Your task to perform on an android device: Is it going to rain this weekend? Image 0: 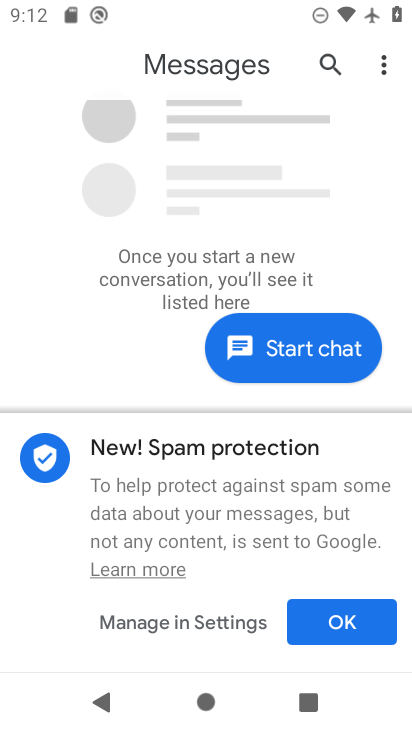
Step 0: press home button
Your task to perform on an android device: Is it going to rain this weekend? Image 1: 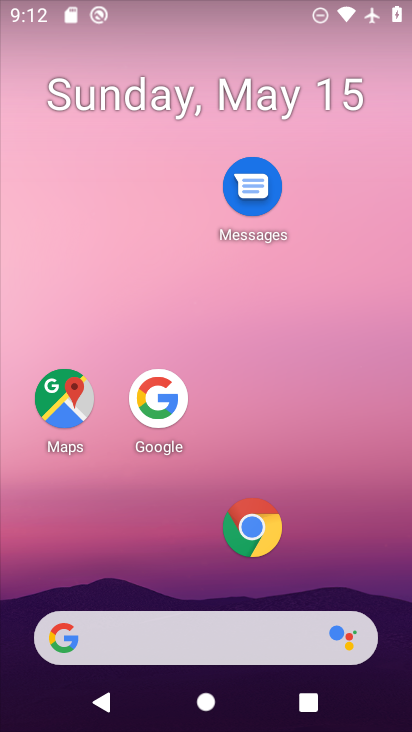
Step 1: click (67, 643)
Your task to perform on an android device: Is it going to rain this weekend? Image 2: 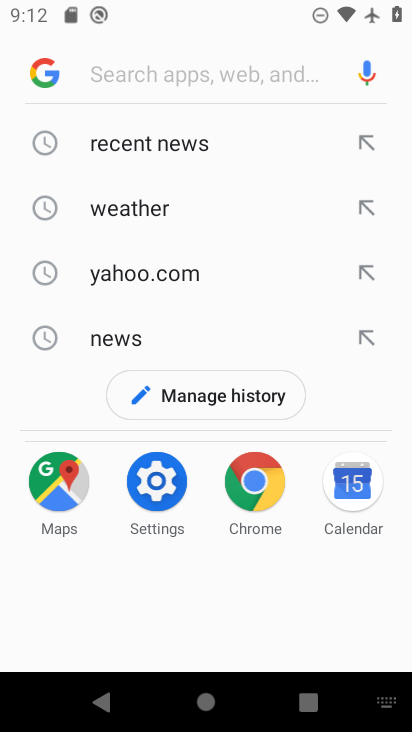
Step 2: click (174, 215)
Your task to perform on an android device: Is it going to rain this weekend? Image 3: 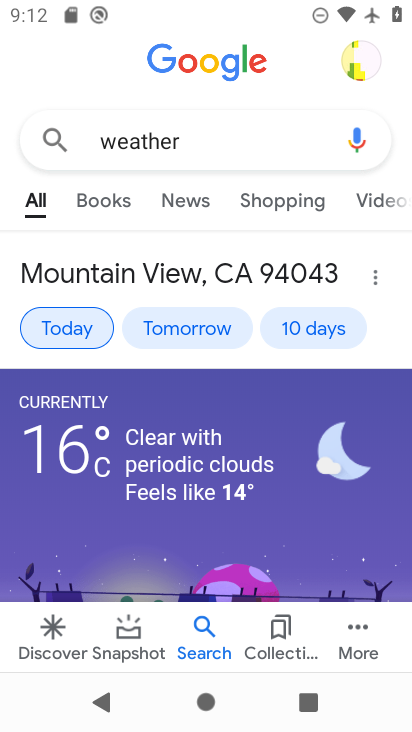
Step 3: click (308, 331)
Your task to perform on an android device: Is it going to rain this weekend? Image 4: 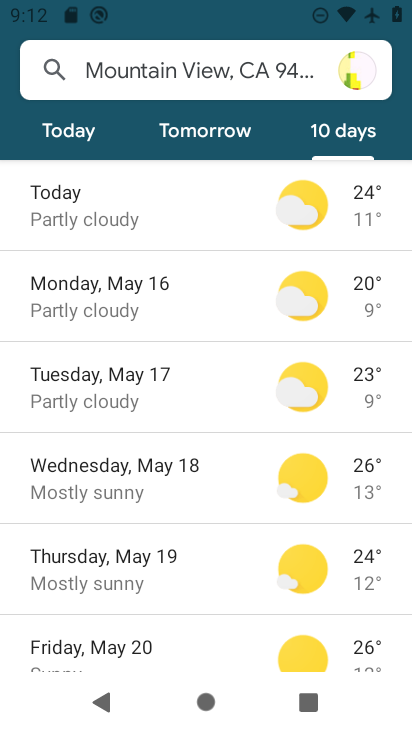
Step 4: task complete